Your task to perform on an android device: toggle wifi Image 0: 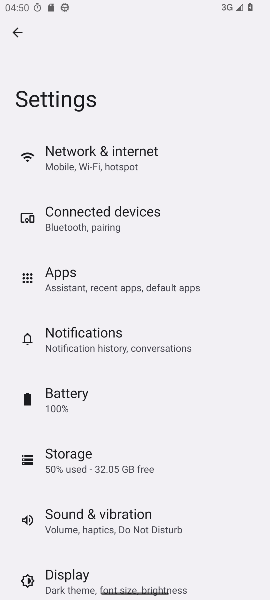
Step 0: click (78, 155)
Your task to perform on an android device: toggle wifi Image 1: 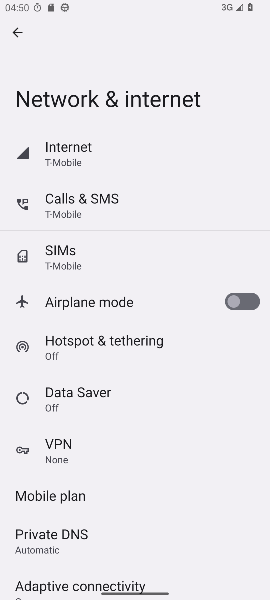
Step 1: click (78, 155)
Your task to perform on an android device: toggle wifi Image 2: 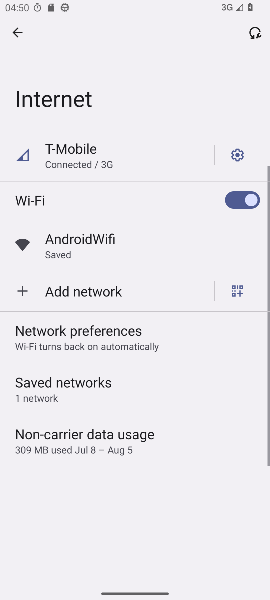
Step 2: task complete